Your task to perform on an android device: Do I have any events today? Image 0: 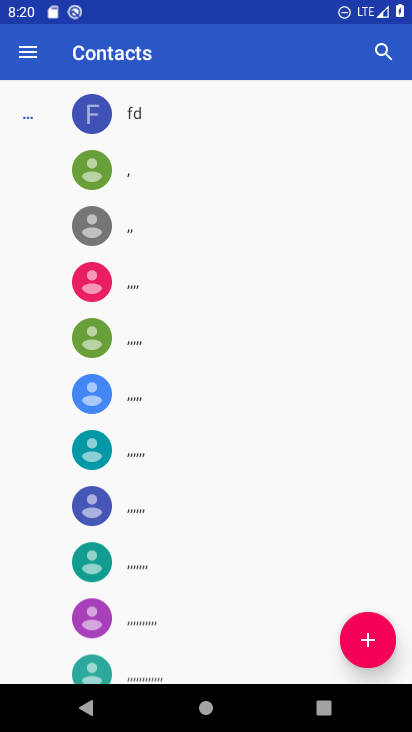
Step 0: drag from (177, 610) to (223, 119)
Your task to perform on an android device: Do I have any events today? Image 1: 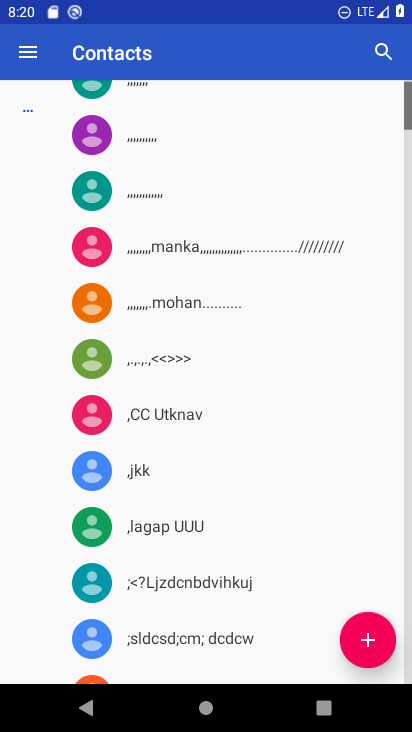
Step 1: press home button
Your task to perform on an android device: Do I have any events today? Image 2: 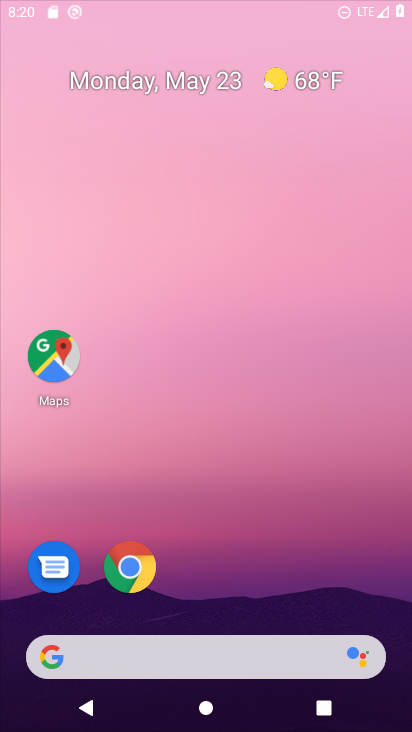
Step 2: drag from (189, 584) to (258, 213)
Your task to perform on an android device: Do I have any events today? Image 3: 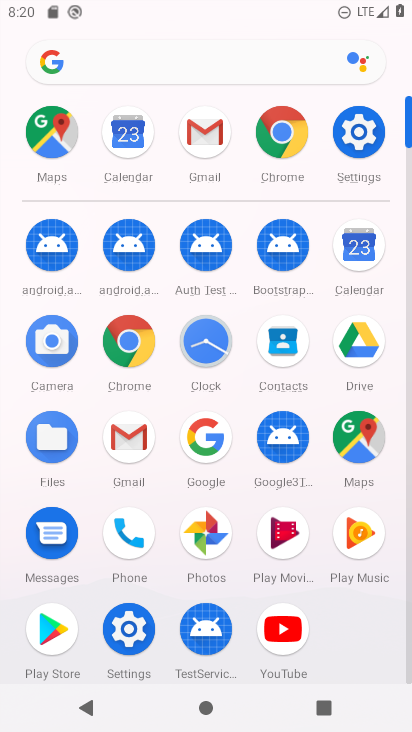
Step 3: click (363, 260)
Your task to perform on an android device: Do I have any events today? Image 4: 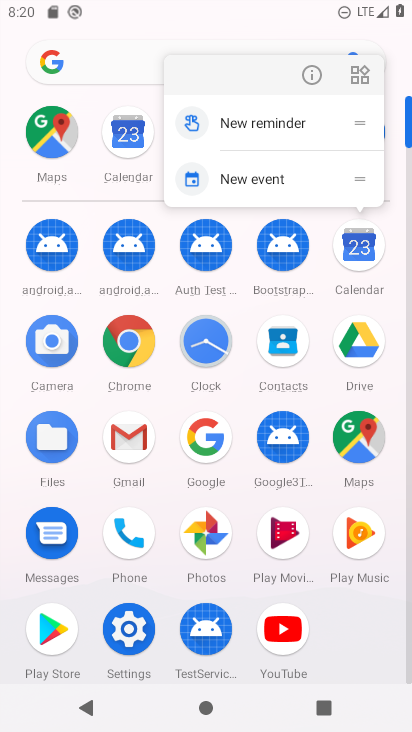
Step 4: click (313, 69)
Your task to perform on an android device: Do I have any events today? Image 5: 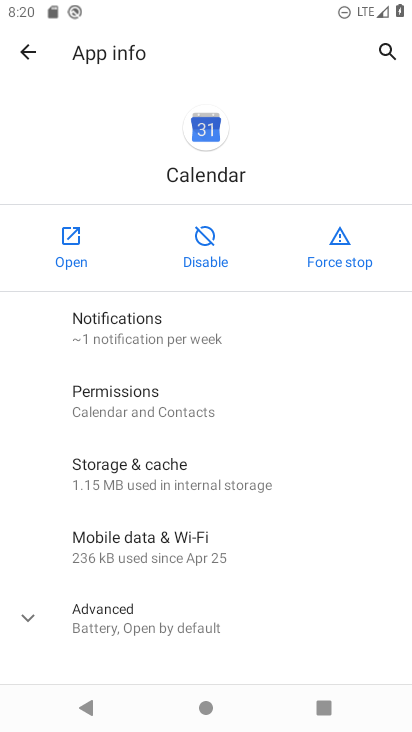
Step 5: click (70, 251)
Your task to perform on an android device: Do I have any events today? Image 6: 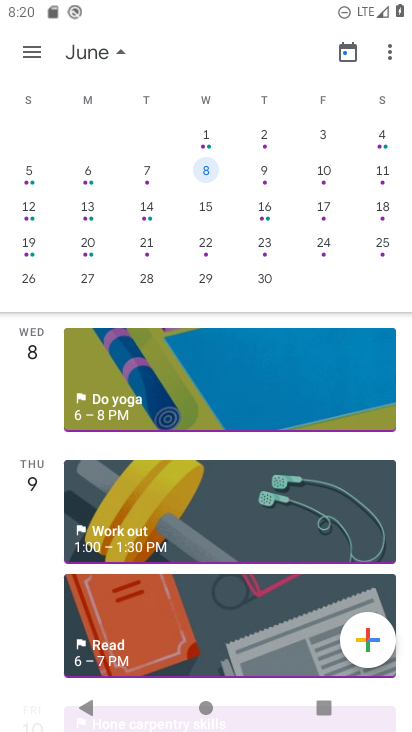
Step 6: drag from (66, 240) to (409, 209)
Your task to perform on an android device: Do I have any events today? Image 7: 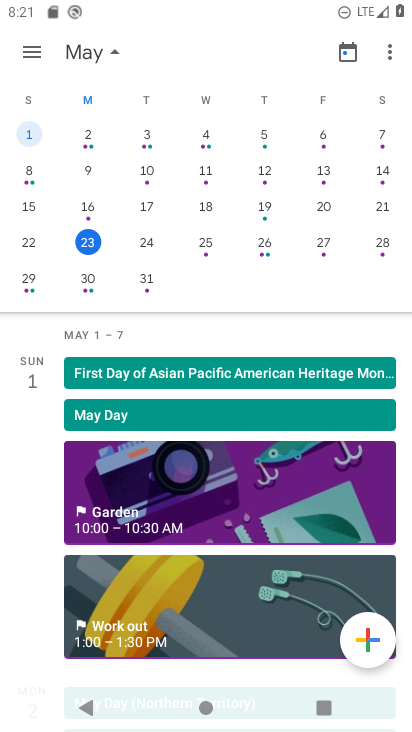
Step 7: click (80, 238)
Your task to perform on an android device: Do I have any events today? Image 8: 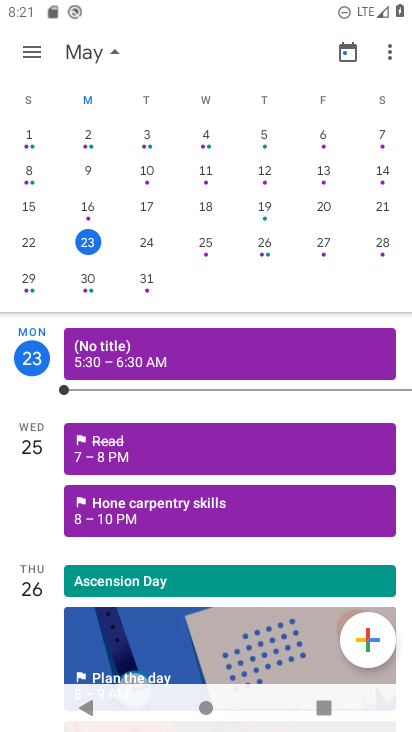
Step 8: task complete